Your task to perform on an android device: Go to calendar. Show me events next week Image 0: 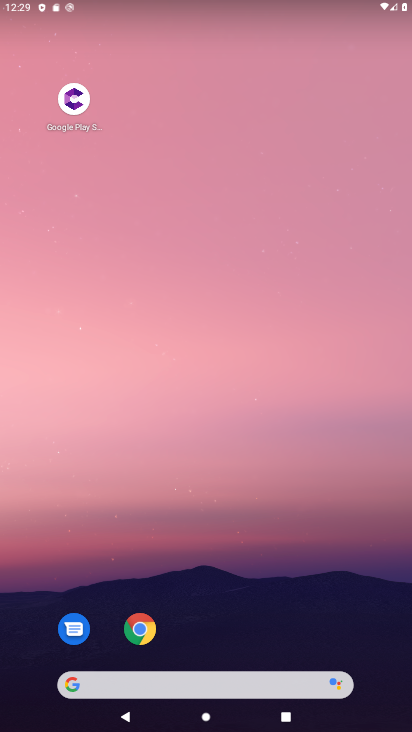
Step 0: drag from (264, 609) to (195, 218)
Your task to perform on an android device: Go to calendar. Show me events next week Image 1: 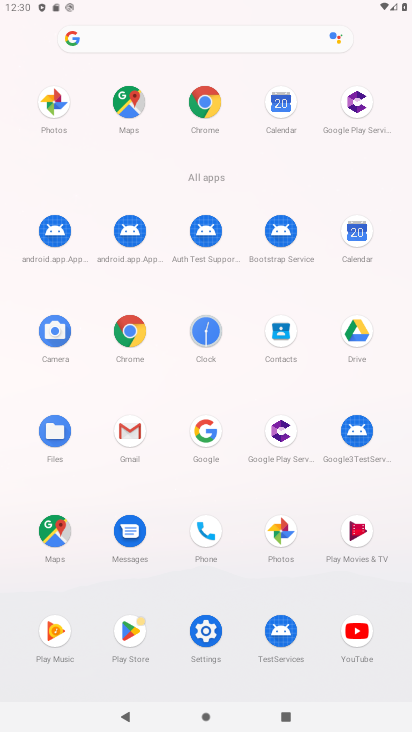
Step 1: click (358, 222)
Your task to perform on an android device: Go to calendar. Show me events next week Image 2: 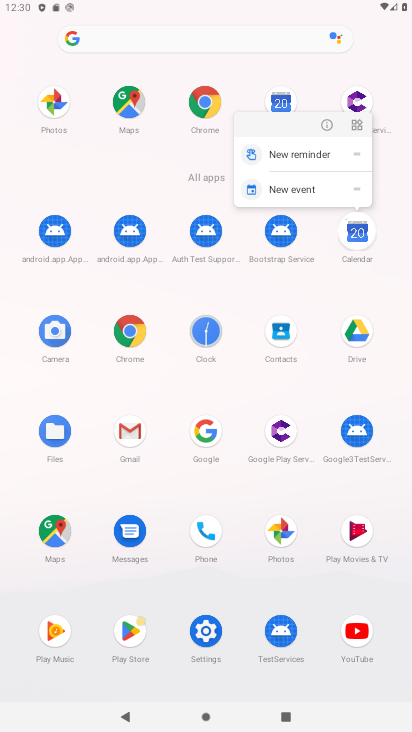
Step 2: click (357, 228)
Your task to perform on an android device: Go to calendar. Show me events next week Image 3: 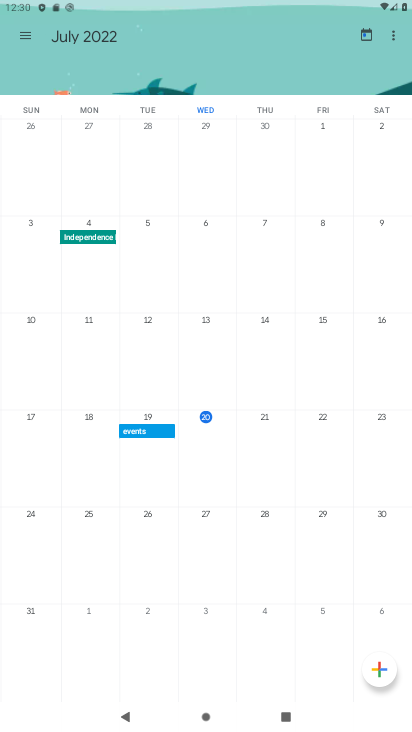
Step 3: click (152, 521)
Your task to perform on an android device: Go to calendar. Show me events next week Image 4: 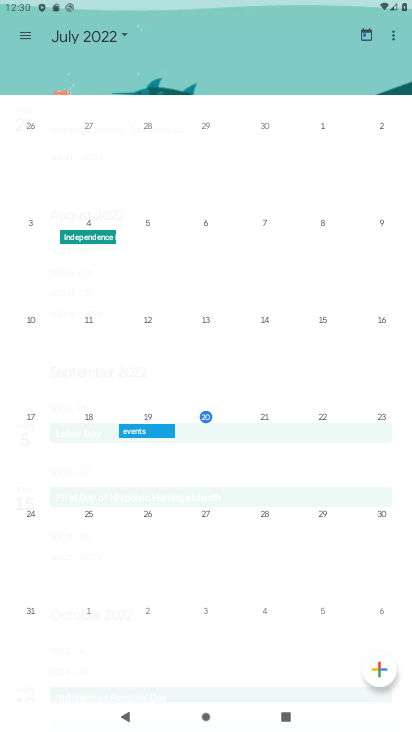
Step 4: click (151, 517)
Your task to perform on an android device: Go to calendar. Show me events next week Image 5: 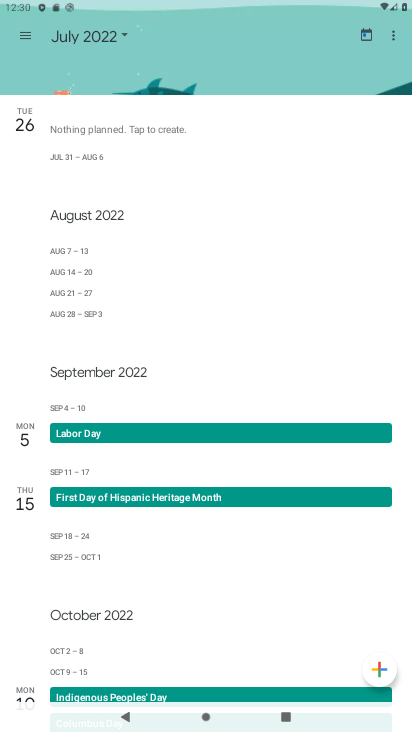
Step 5: click (151, 517)
Your task to perform on an android device: Go to calendar. Show me events next week Image 6: 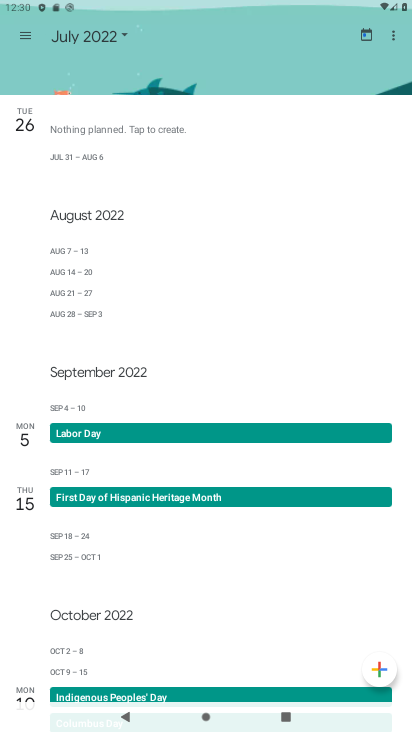
Step 6: task complete